Your task to perform on an android device: toggle wifi Image 0: 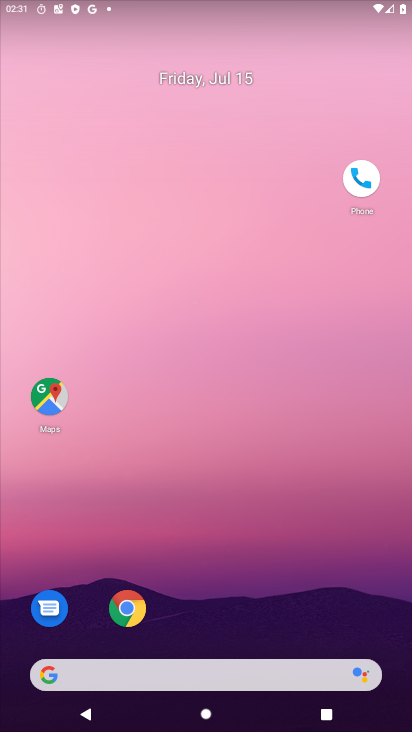
Step 0: click (151, 7)
Your task to perform on an android device: toggle wifi Image 1: 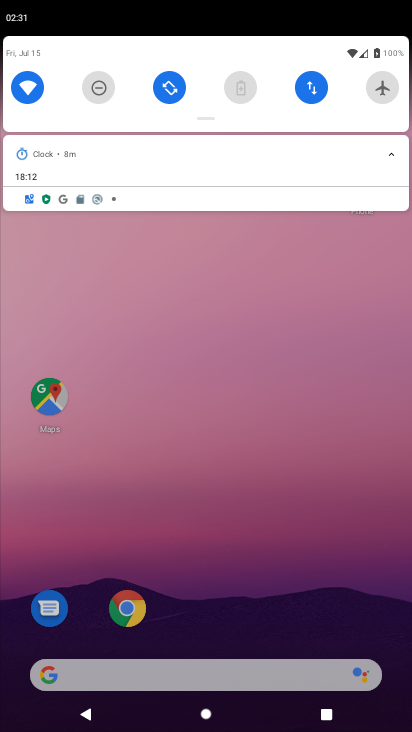
Step 1: drag from (226, 415) to (276, 185)
Your task to perform on an android device: toggle wifi Image 2: 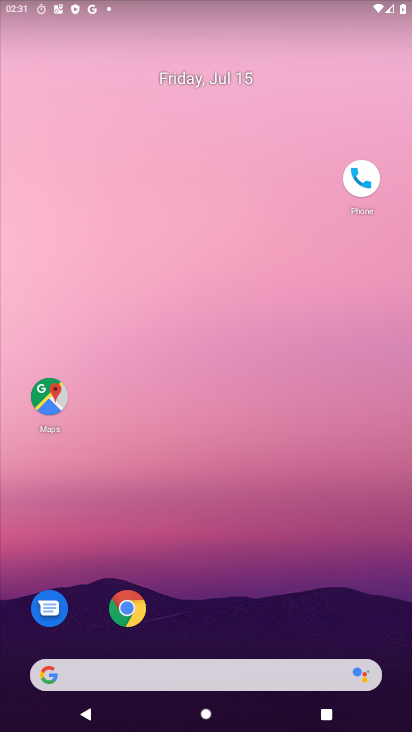
Step 2: drag from (188, 633) to (241, 214)
Your task to perform on an android device: toggle wifi Image 3: 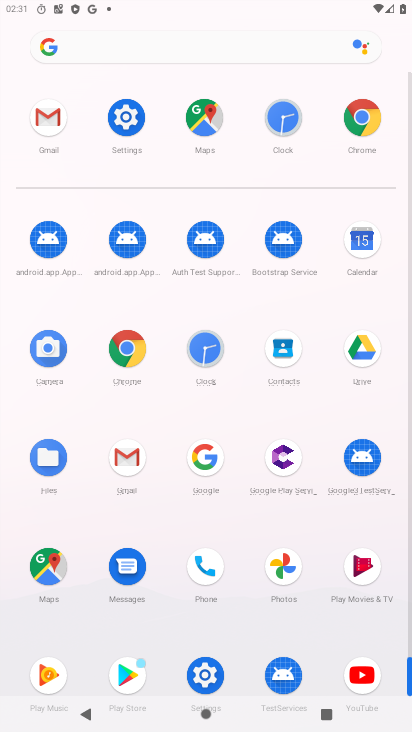
Step 3: click (121, 117)
Your task to perform on an android device: toggle wifi Image 4: 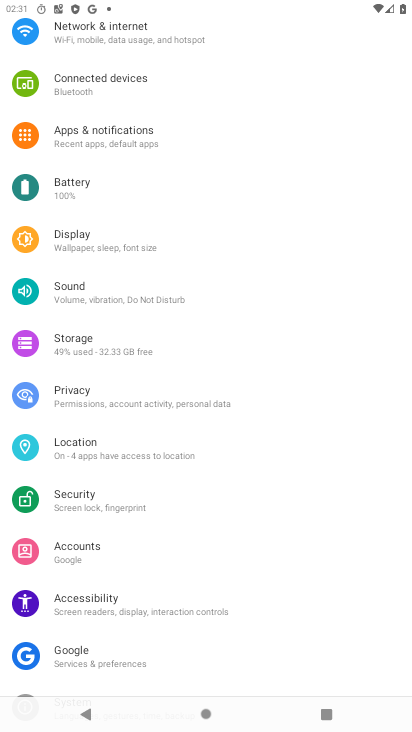
Step 4: drag from (182, 83) to (267, 731)
Your task to perform on an android device: toggle wifi Image 5: 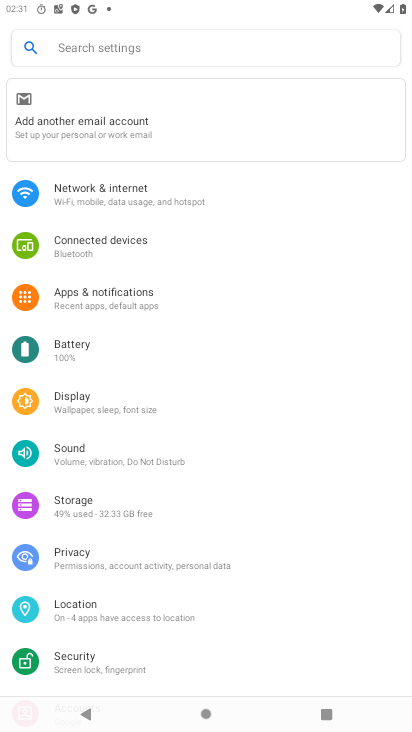
Step 5: click (121, 33)
Your task to perform on an android device: toggle wifi Image 6: 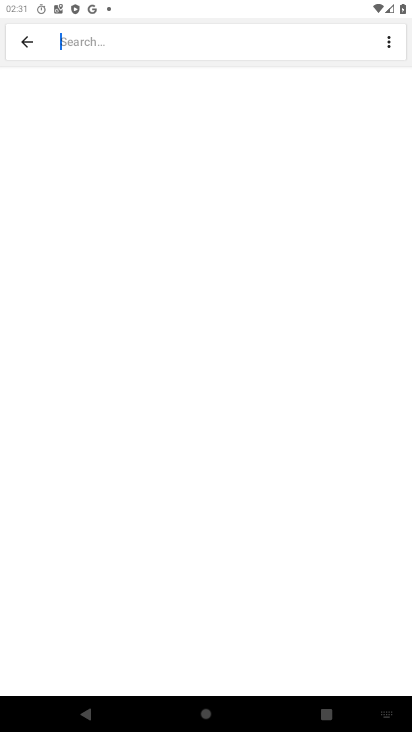
Step 6: click (16, 40)
Your task to perform on an android device: toggle wifi Image 7: 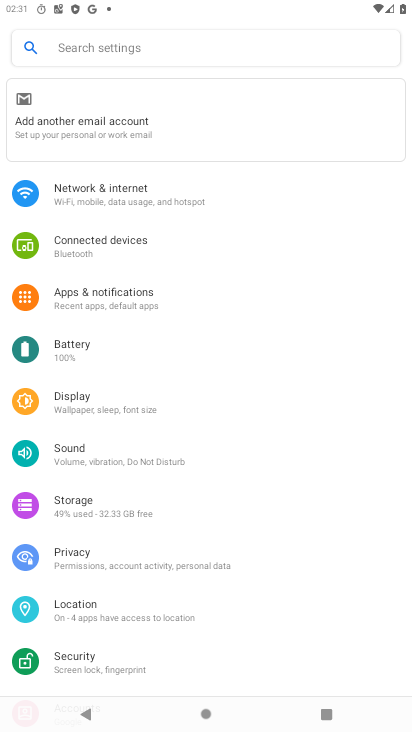
Step 7: click (118, 193)
Your task to perform on an android device: toggle wifi Image 8: 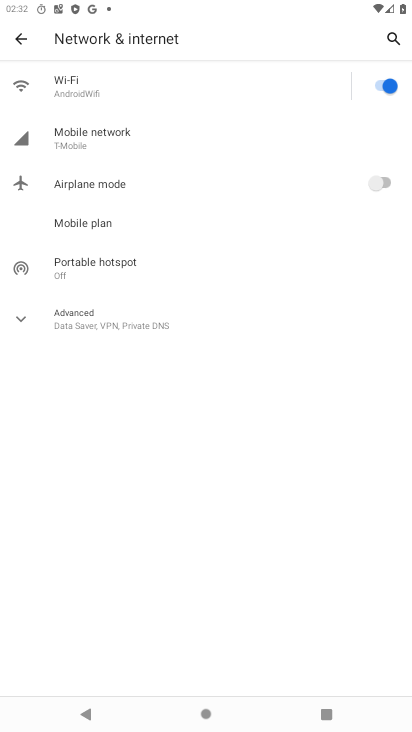
Step 8: click (158, 100)
Your task to perform on an android device: toggle wifi Image 9: 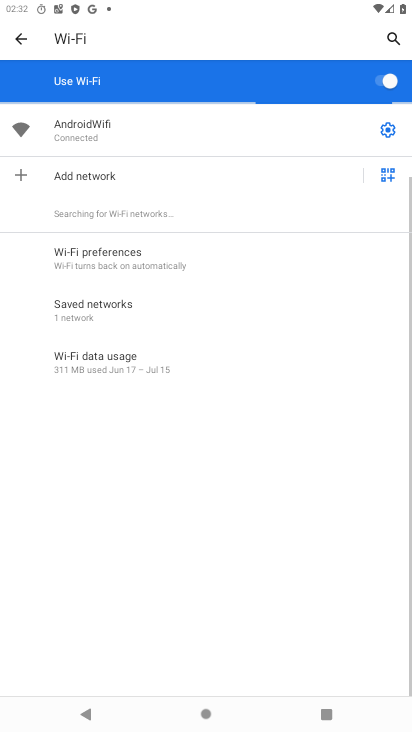
Step 9: drag from (280, 502) to (290, 258)
Your task to perform on an android device: toggle wifi Image 10: 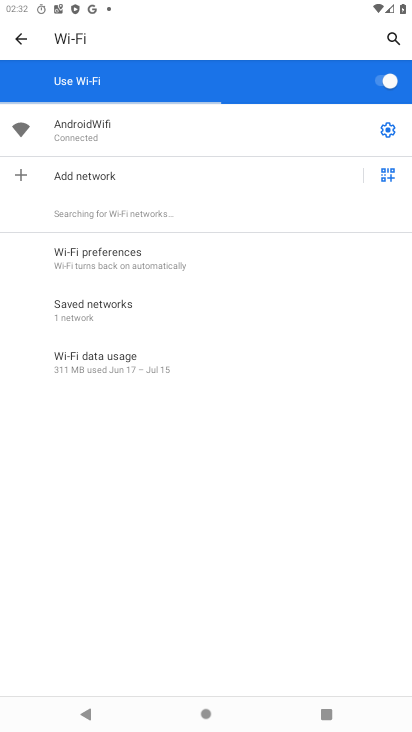
Step 10: drag from (271, 466) to (271, 288)
Your task to perform on an android device: toggle wifi Image 11: 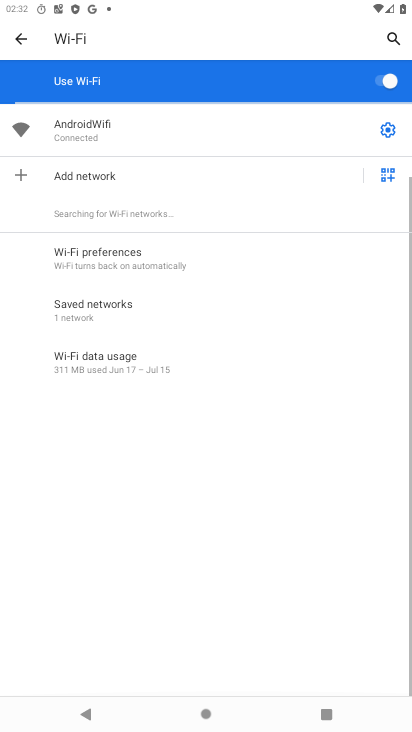
Step 11: drag from (198, 138) to (191, 570)
Your task to perform on an android device: toggle wifi Image 12: 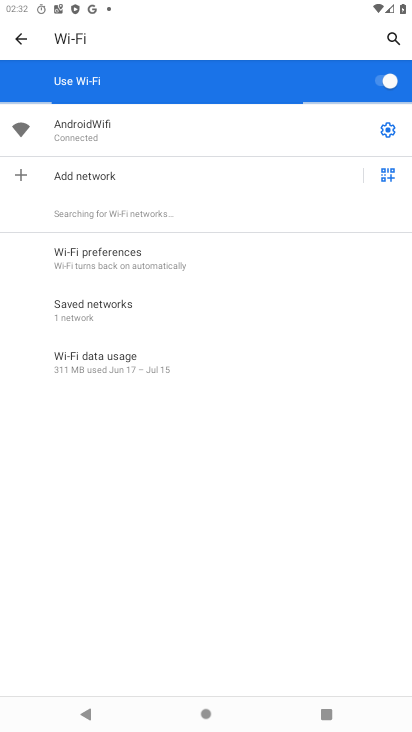
Step 12: click (383, 74)
Your task to perform on an android device: toggle wifi Image 13: 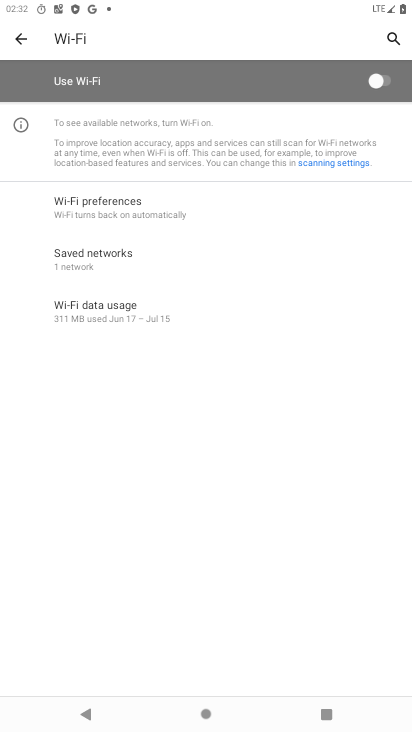
Step 13: task complete